Your task to perform on an android device: Open battery settings Image 0: 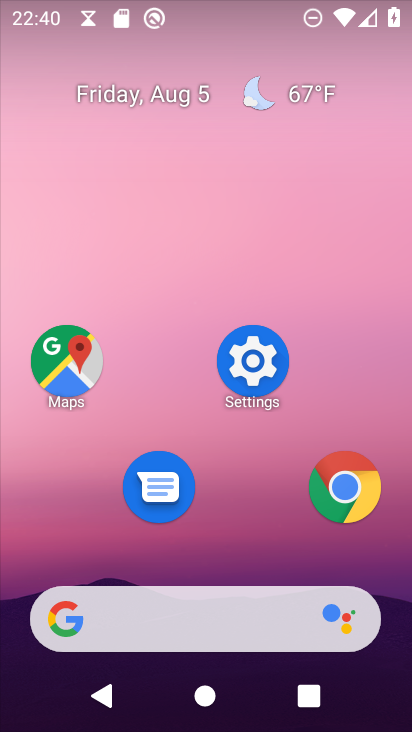
Step 0: press home button
Your task to perform on an android device: Open battery settings Image 1: 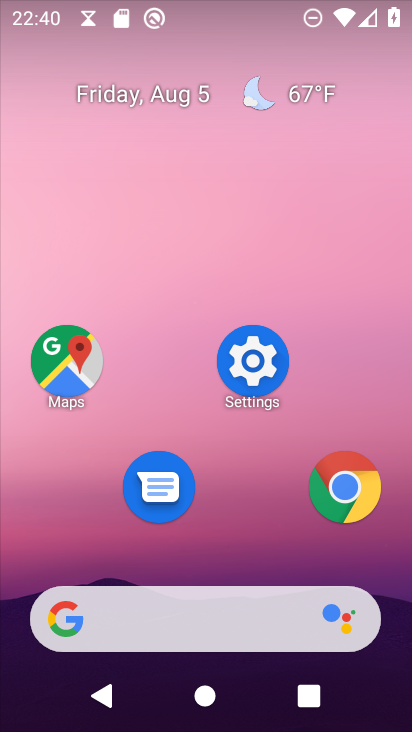
Step 1: click (260, 354)
Your task to perform on an android device: Open battery settings Image 2: 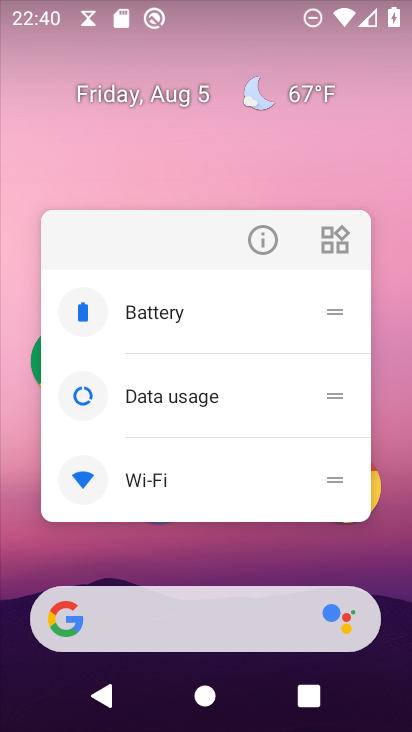
Step 2: click (376, 166)
Your task to perform on an android device: Open battery settings Image 3: 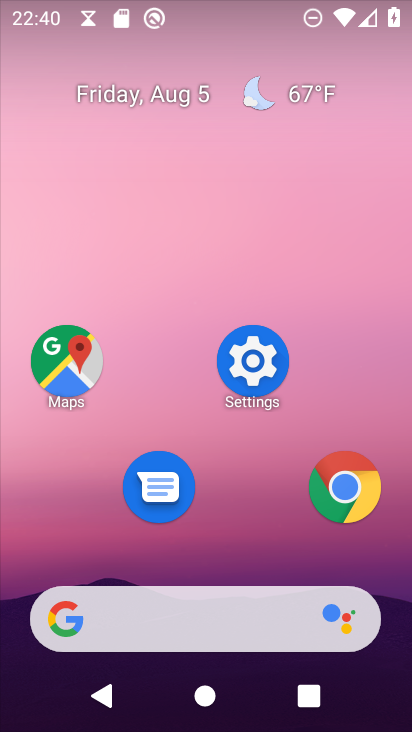
Step 3: click (255, 363)
Your task to perform on an android device: Open battery settings Image 4: 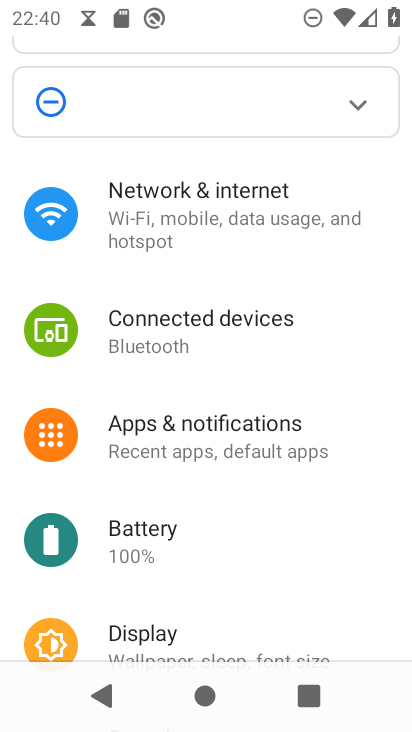
Step 4: click (156, 527)
Your task to perform on an android device: Open battery settings Image 5: 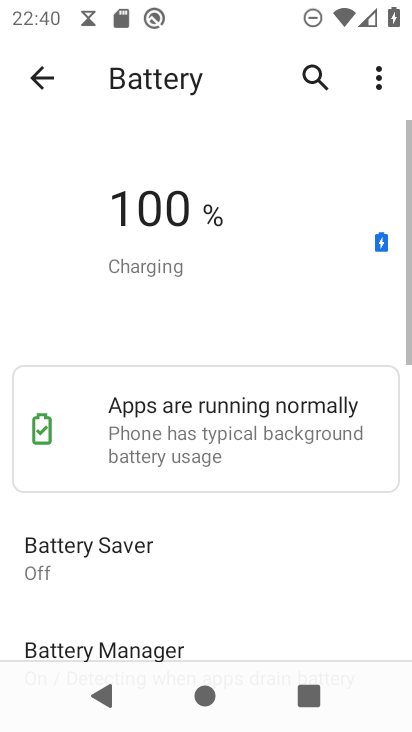
Step 5: task complete